Your task to perform on an android device: Search for vegetarian restaurants on Maps Image 0: 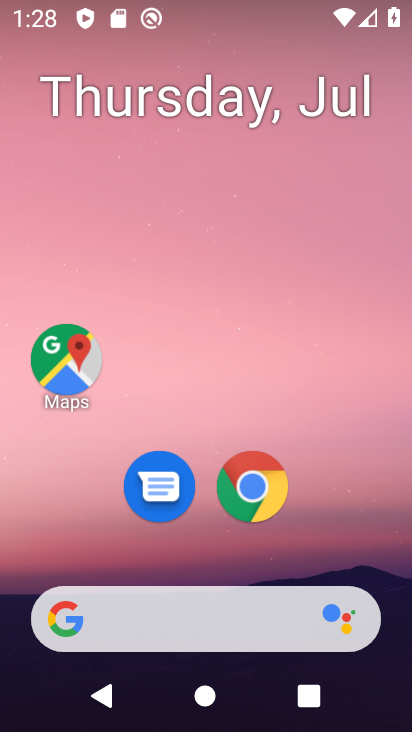
Step 0: click (60, 352)
Your task to perform on an android device: Search for vegetarian restaurants on Maps Image 1: 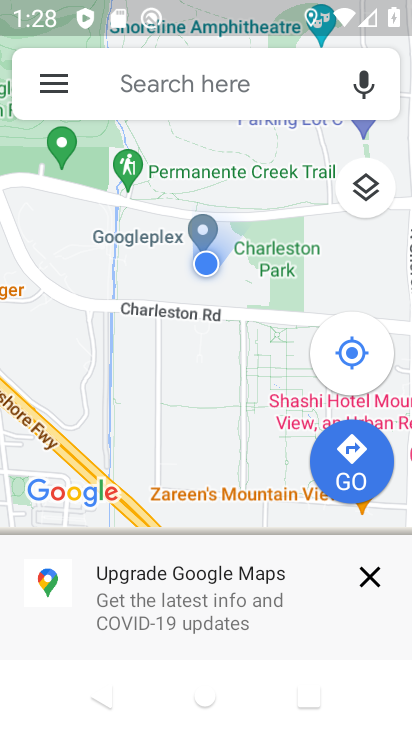
Step 1: click (170, 93)
Your task to perform on an android device: Search for vegetarian restaurants on Maps Image 2: 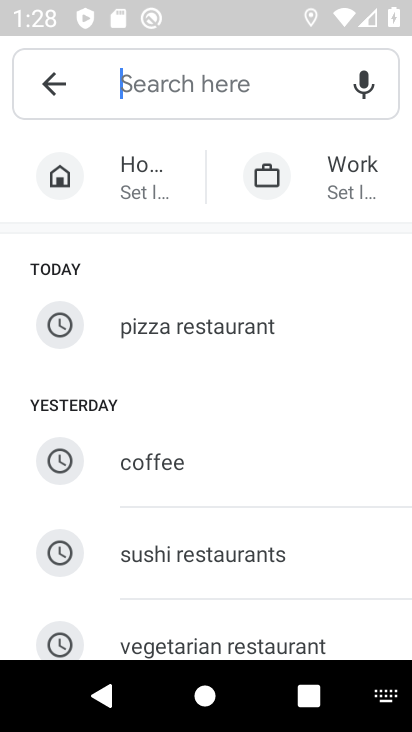
Step 2: click (178, 642)
Your task to perform on an android device: Search for vegetarian restaurants on Maps Image 3: 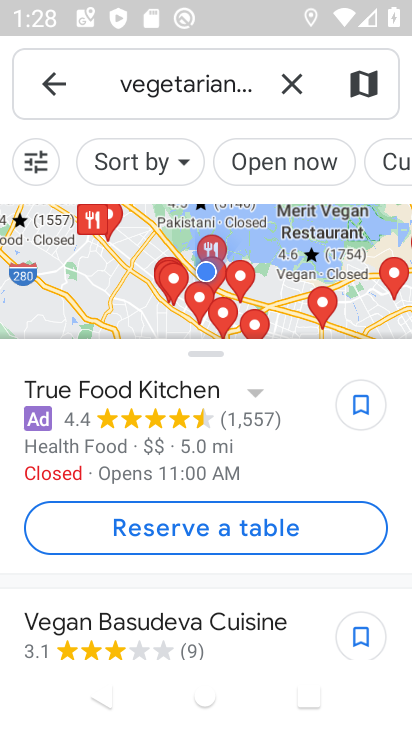
Step 3: task complete